Your task to perform on an android device: see creations saved in the google photos Image 0: 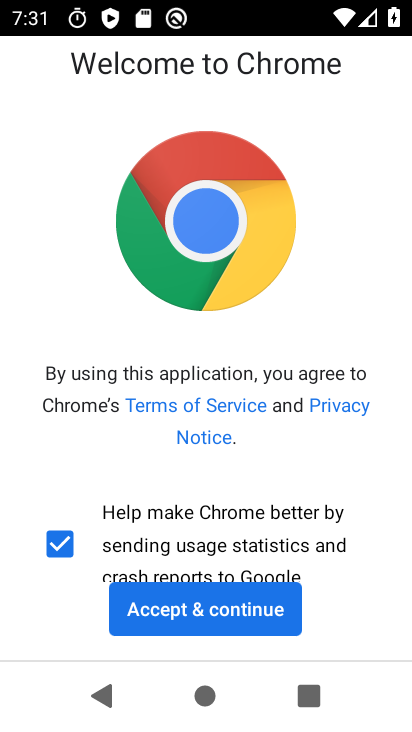
Step 0: press home button
Your task to perform on an android device: see creations saved in the google photos Image 1: 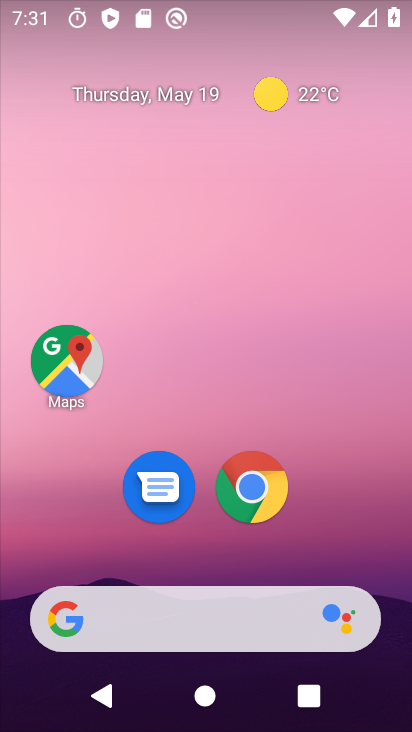
Step 1: drag from (163, 624) to (328, 187)
Your task to perform on an android device: see creations saved in the google photos Image 2: 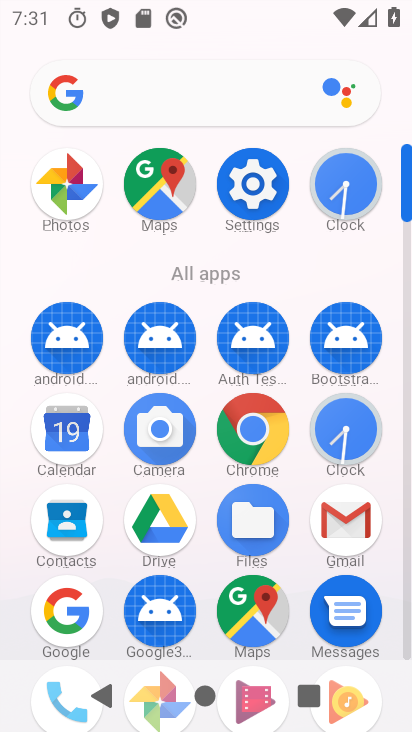
Step 2: click (55, 189)
Your task to perform on an android device: see creations saved in the google photos Image 3: 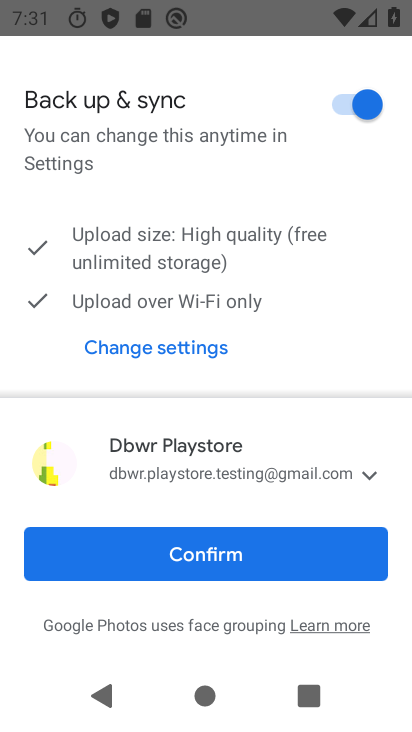
Step 3: click (205, 555)
Your task to perform on an android device: see creations saved in the google photos Image 4: 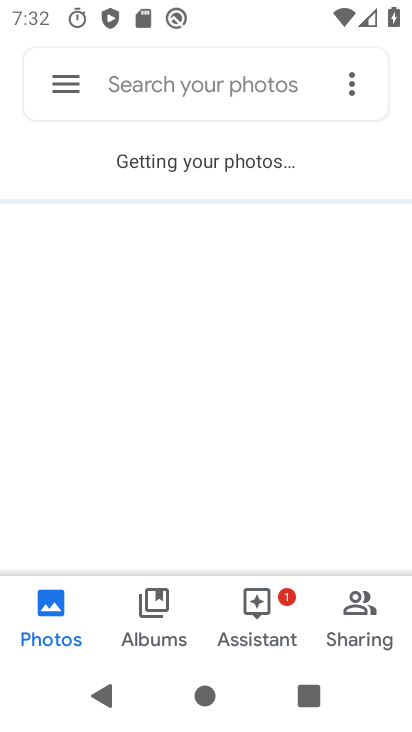
Step 4: click (154, 613)
Your task to perform on an android device: see creations saved in the google photos Image 5: 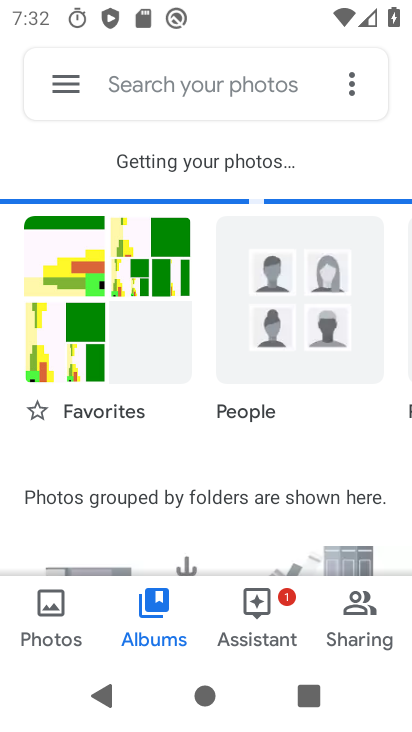
Step 5: click (355, 82)
Your task to perform on an android device: see creations saved in the google photos Image 6: 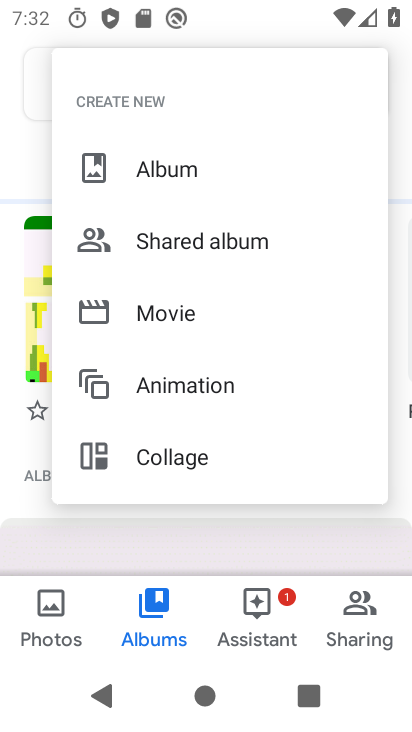
Step 6: drag from (232, 451) to (309, 276)
Your task to perform on an android device: see creations saved in the google photos Image 7: 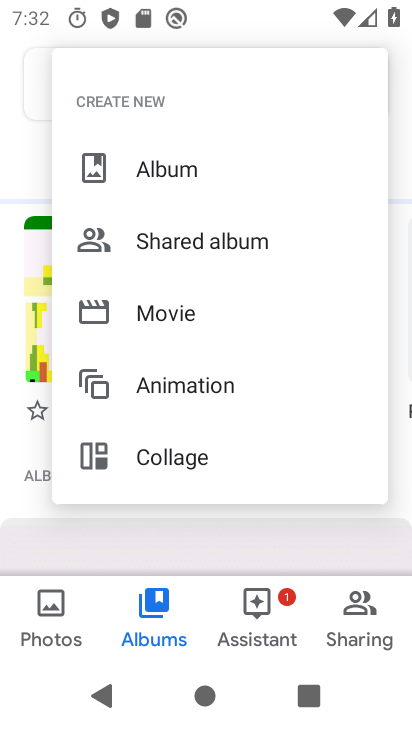
Step 7: click (263, 533)
Your task to perform on an android device: see creations saved in the google photos Image 8: 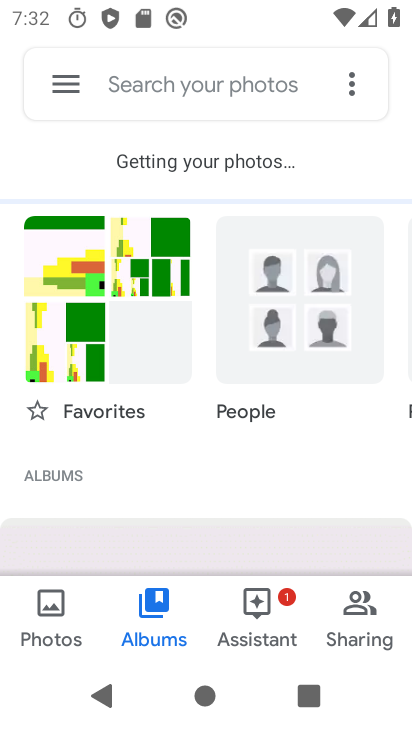
Step 8: click (214, 74)
Your task to perform on an android device: see creations saved in the google photos Image 9: 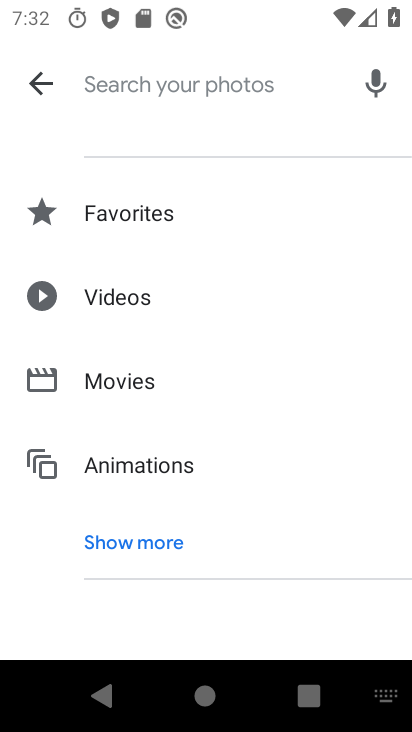
Step 9: click (159, 541)
Your task to perform on an android device: see creations saved in the google photos Image 10: 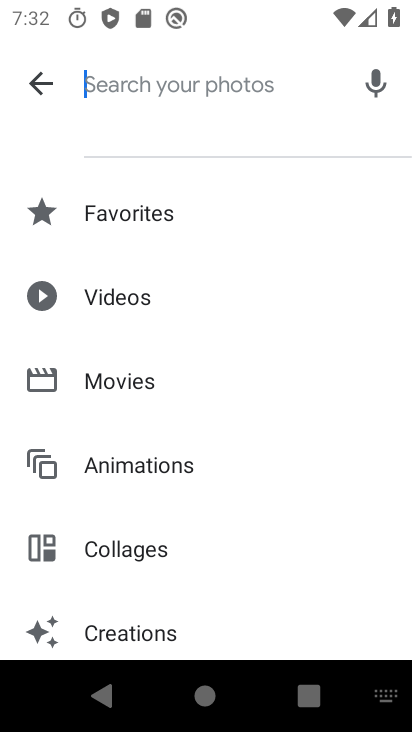
Step 10: drag from (222, 577) to (330, 268)
Your task to perform on an android device: see creations saved in the google photos Image 11: 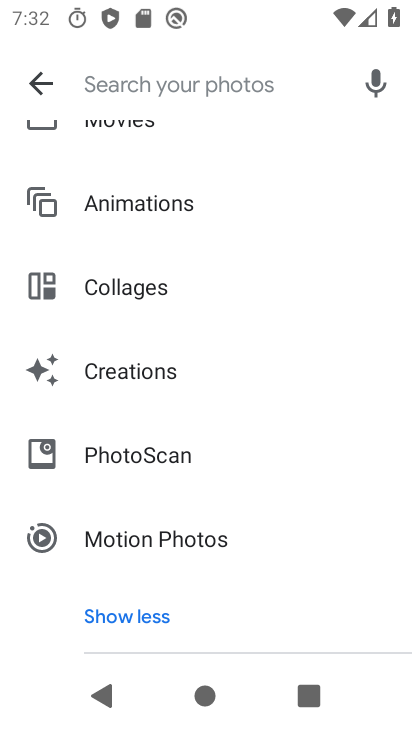
Step 11: click (148, 361)
Your task to perform on an android device: see creations saved in the google photos Image 12: 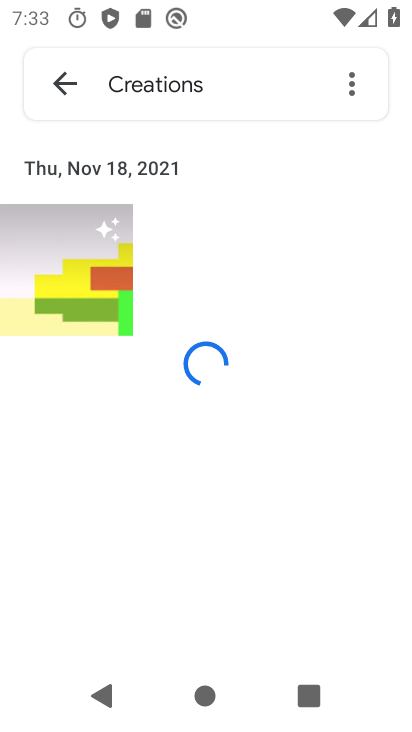
Step 12: task complete